Your task to perform on an android device: empty trash in the gmail app Image 0: 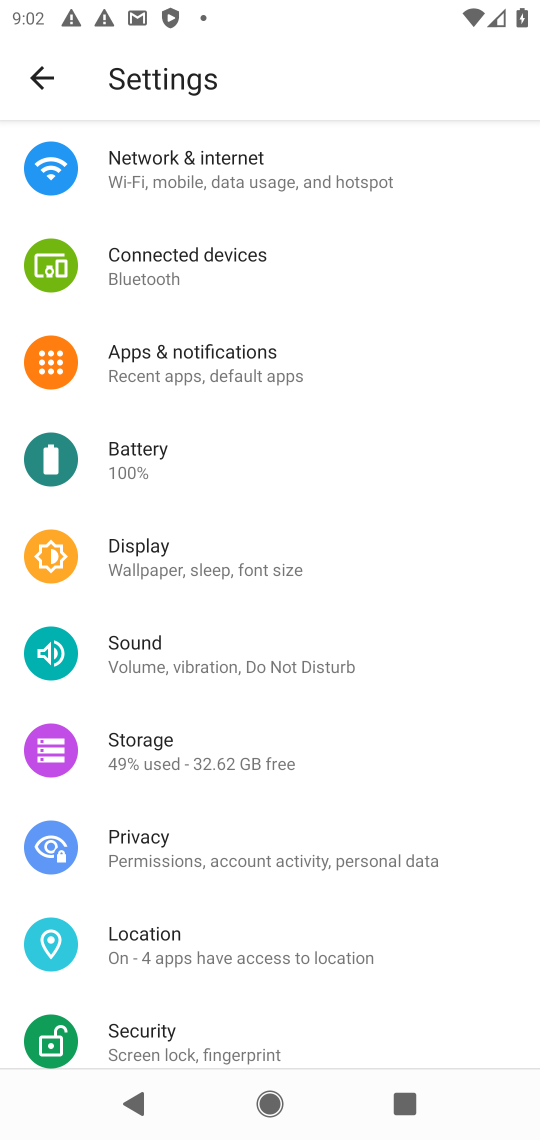
Step 0: press back button
Your task to perform on an android device: empty trash in the gmail app Image 1: 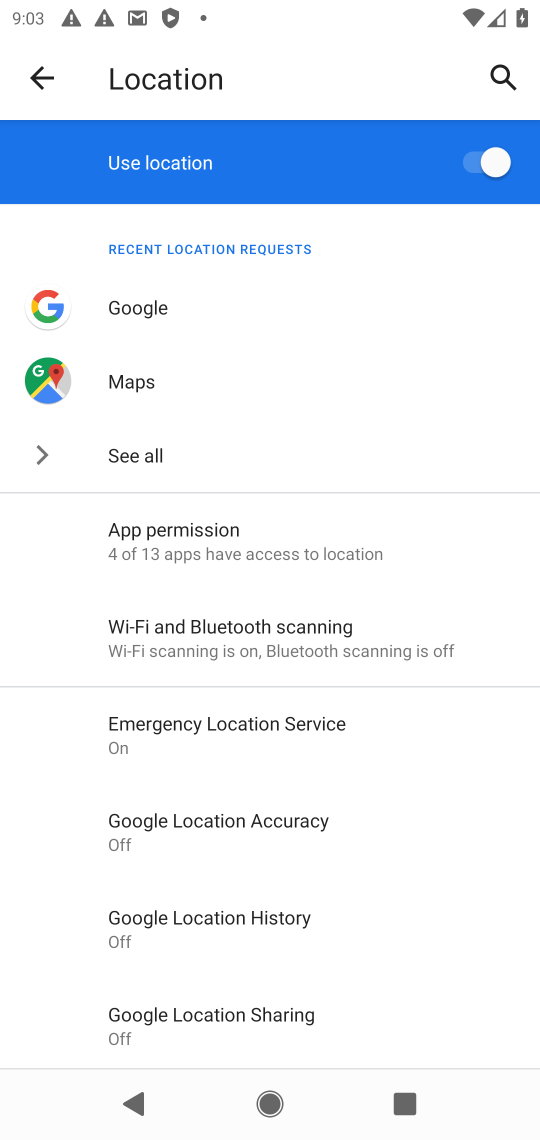
Step 1: press back button
Your task to perform on an android device: empty trash in the gmail app Image 2: 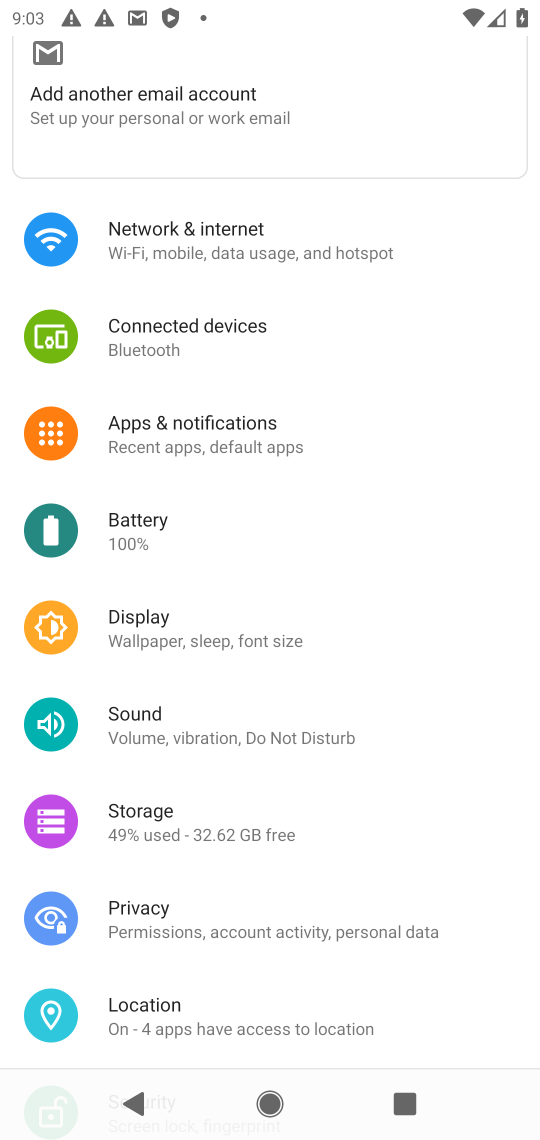
Step 2: press back button
Your task to perform on an android device: empty trash in the gmail app Image 3: 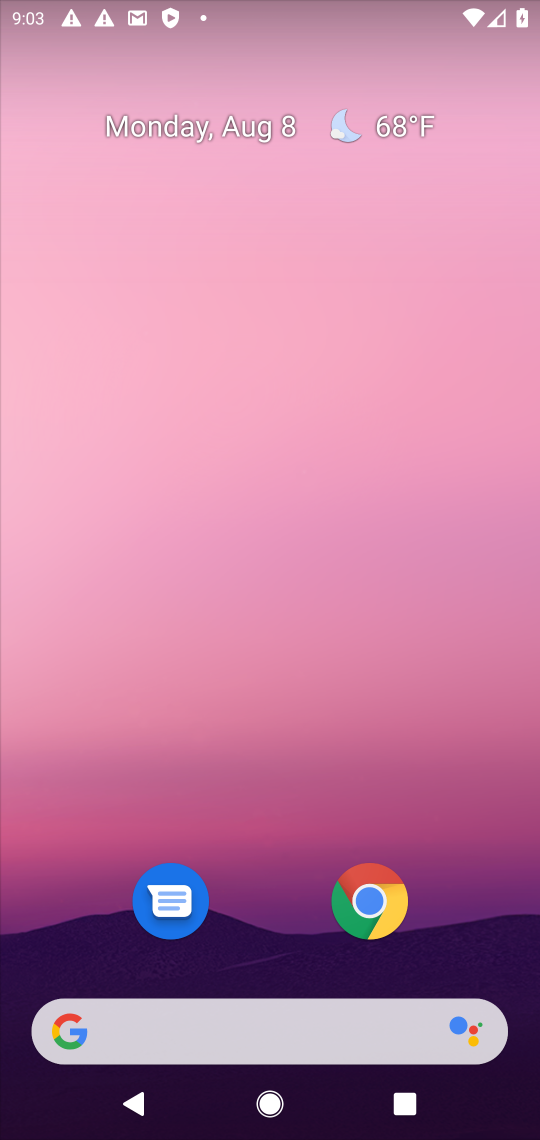
Step 3: drag from (236, 832) to (242, 34)
Your task to perform on an android device: empty trash in the gmail app Image 4: 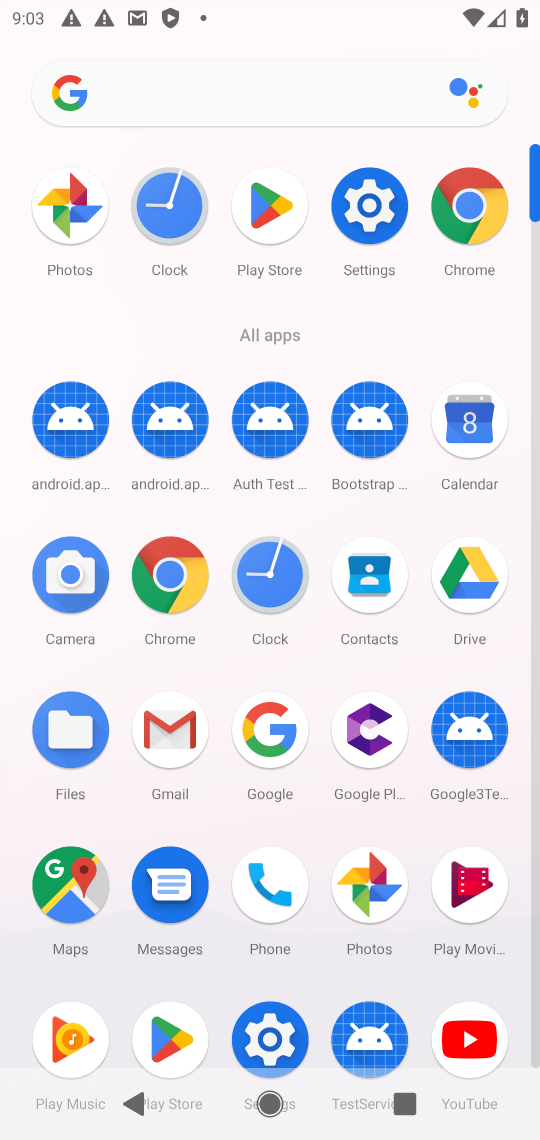
Step 4: click (173, 758)
Your task to perform on an android device: empty trash in the gmail app Image 5: 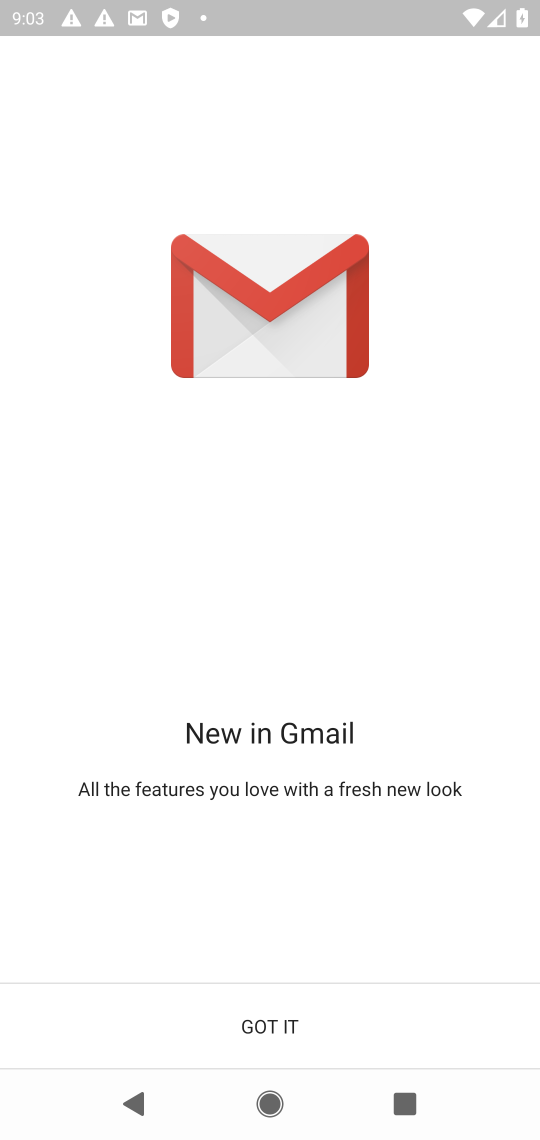
Step 5: click (233, 1030)
Your task to perform on an android device: empty trash in the gmail app Image 6: 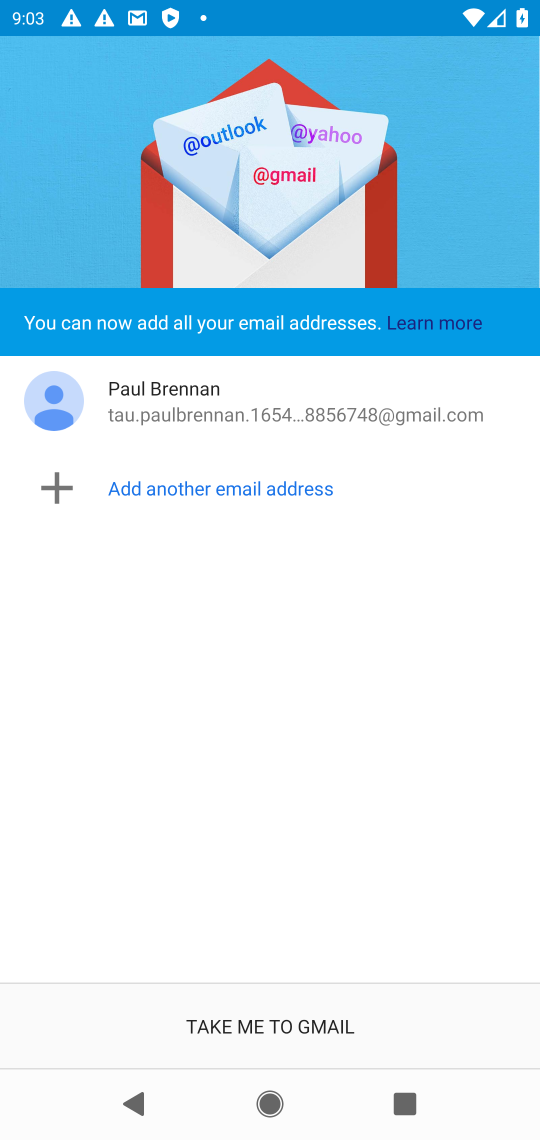
Step 6: click (259, 1030)
Your task to perform on an android device: empty trash in the gmail app Image 7: 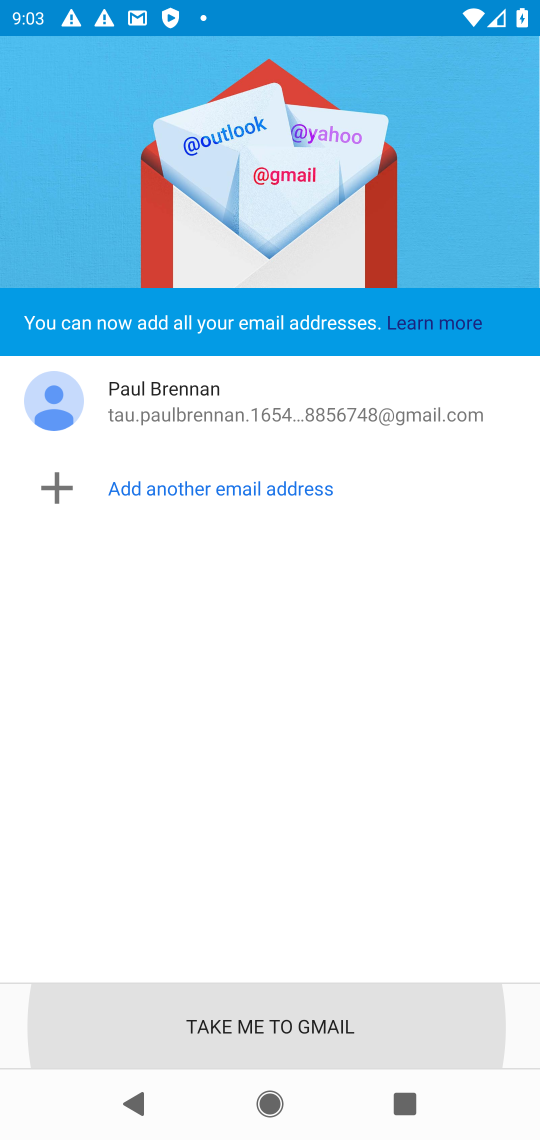
Step 7: click (259, 1030)
Your task to perform on an android device: empty trash in the gmail app Image 8: 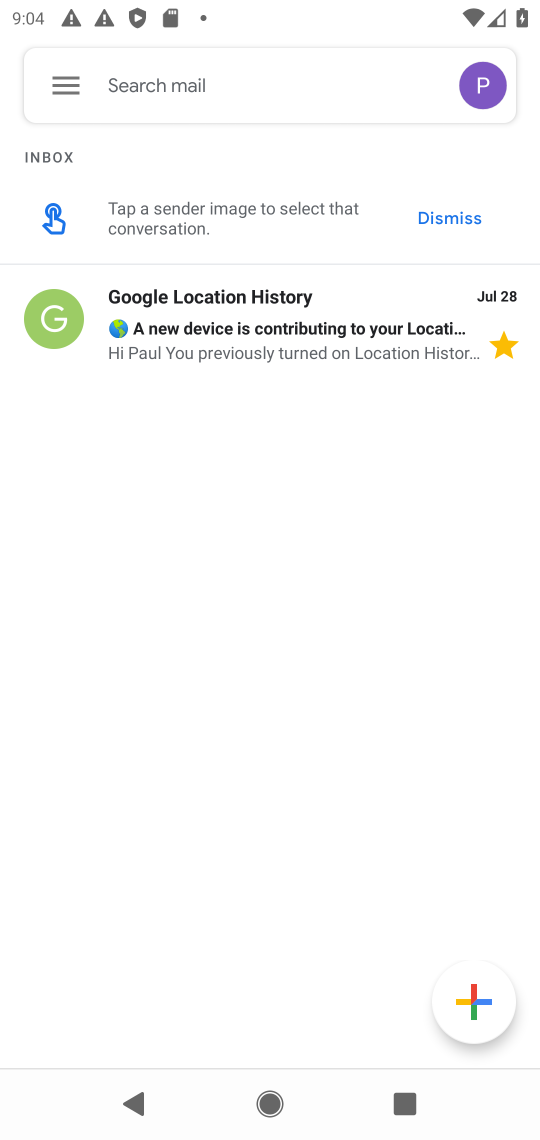
Step 8: click (65, 90)
Your task to perform on an android device: empty trash in the gmail app Image 9: 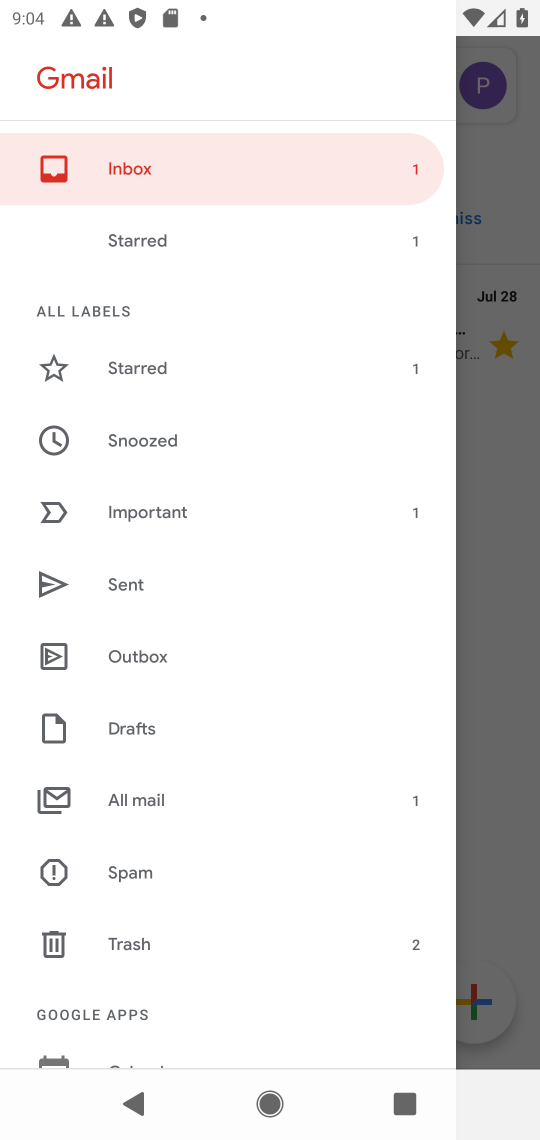
Step 9: click (237, 941)
Your task to perform on an android device: empty trash in the gmail app Image 10: 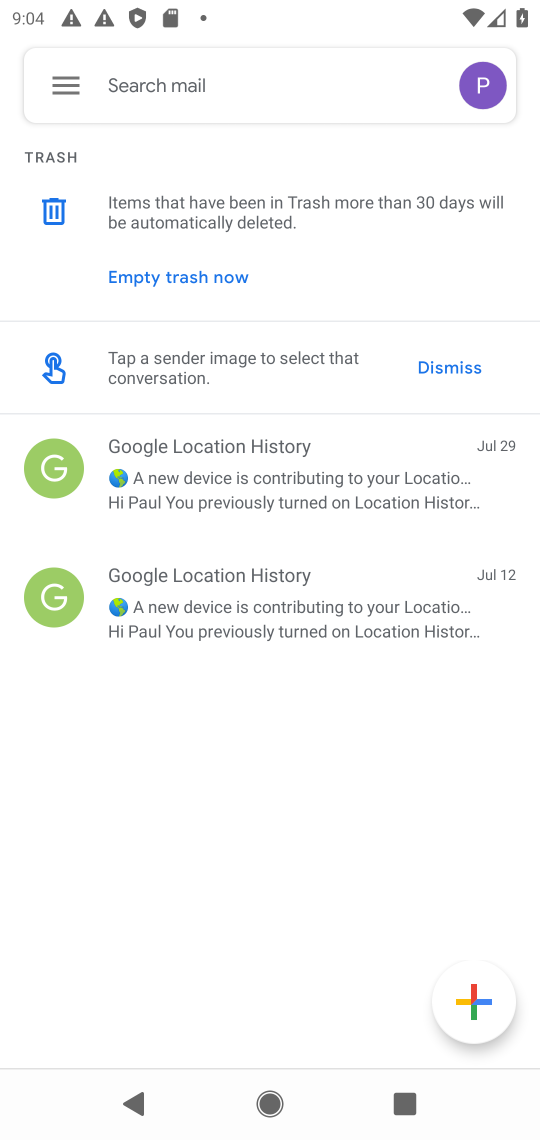
Step 10: click (210, 273)
Your task to perform on an android device: empty trash in the gmail app Image 11: 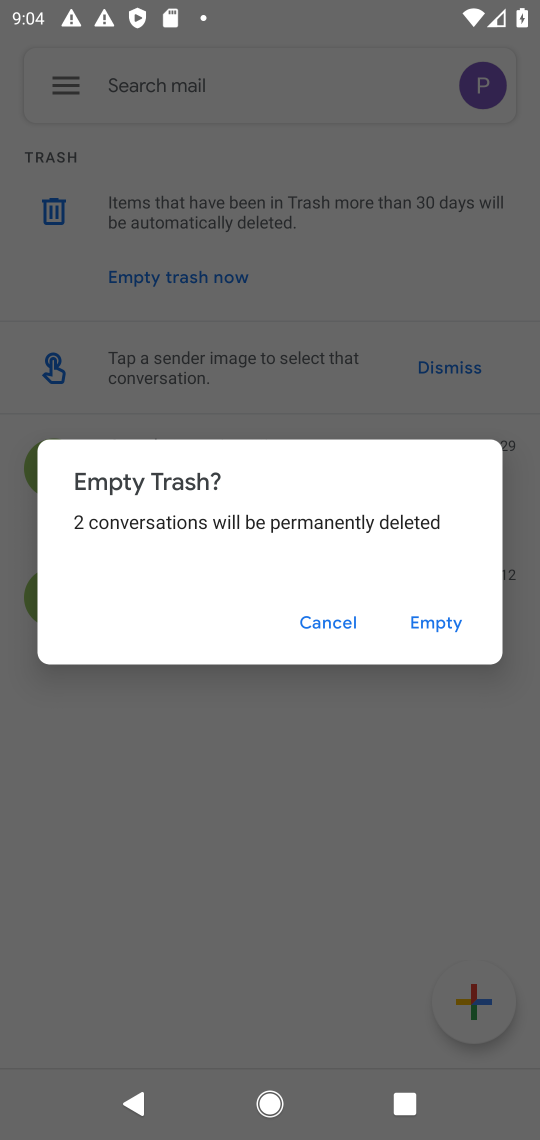
Step 11: click (438, 620)
Your task to perform on an android device: empty trash in the gmail app Image 12: 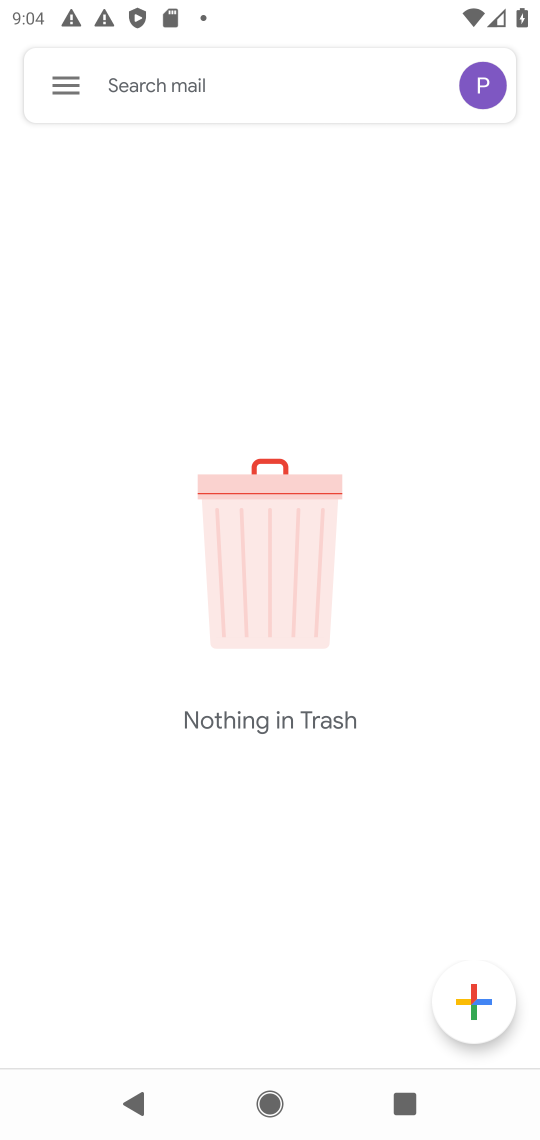
Step 12: task complete